Your task to perform on an android device: turn off airplane mode Image 0: 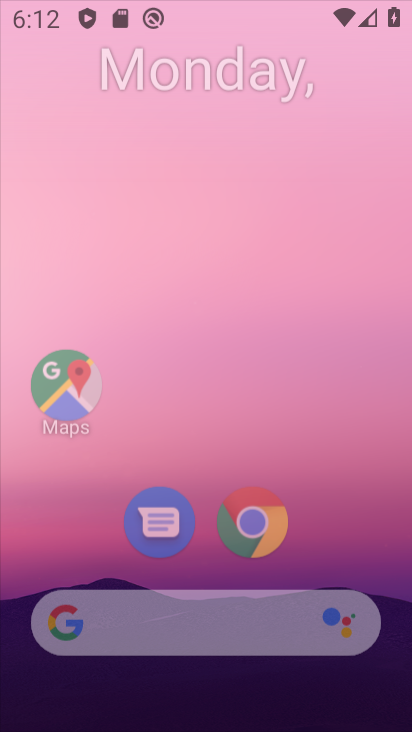
Step 0: press home button
Your task to perform on an android device: turn off airplane mode Image 1: 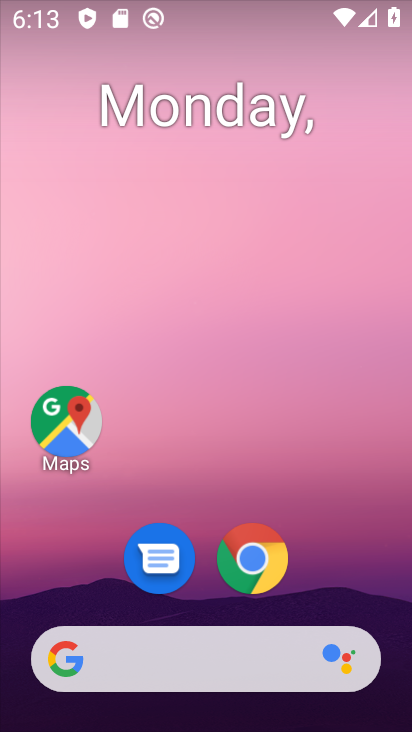
Step 1: task complete